Your task to perform on an android device: move a message to another label in the gmail app Image 0: 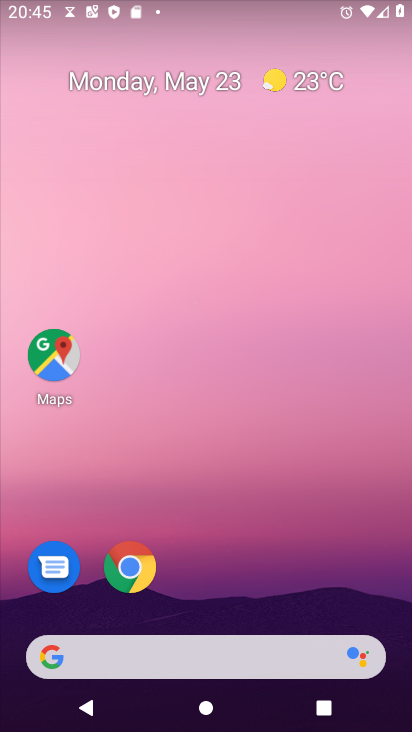
Step 0: drag from (249, 612) to (284, 265)
Your task to perform on an android device: move a message to another label in the gmail app Image 1: 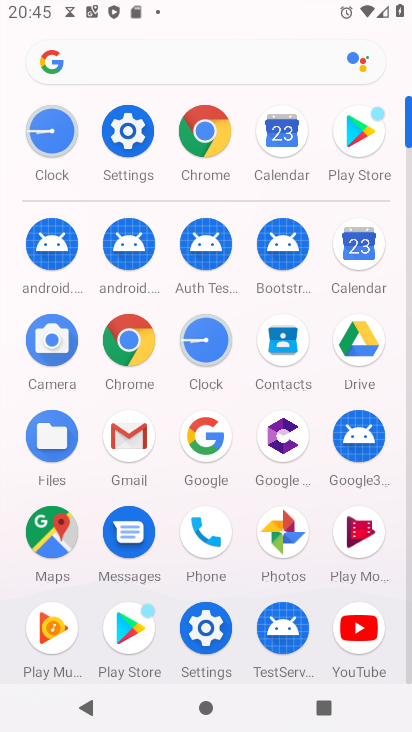
Step 1: drag from (234, 581) to (272, 360)
Your task to perform on an android device: move a message to another label in the gmail app Image 2: 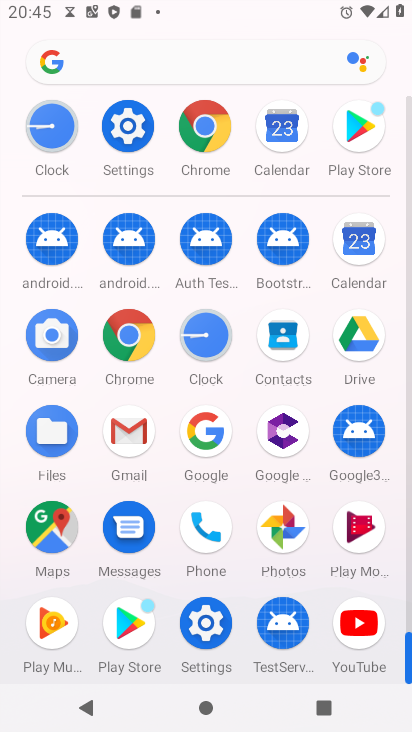
Step 2: click (99, 418)
Your task to perform on an android device: move a message to another label in the gmail app Image 3: 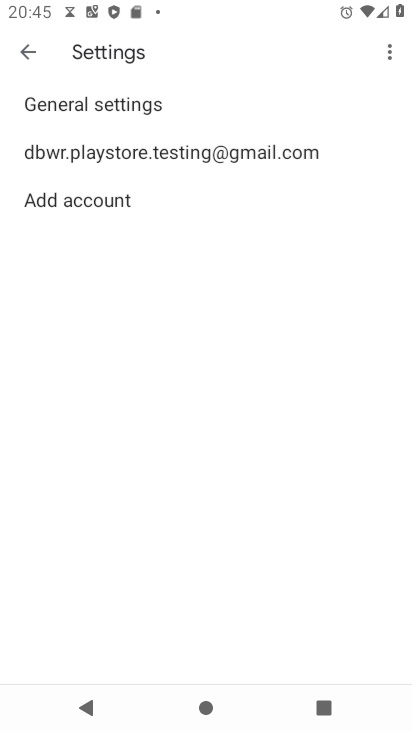
Step 3: click (107, 428)
Your task to perform on an android device: move a message to another label in the gmail app Image 4: 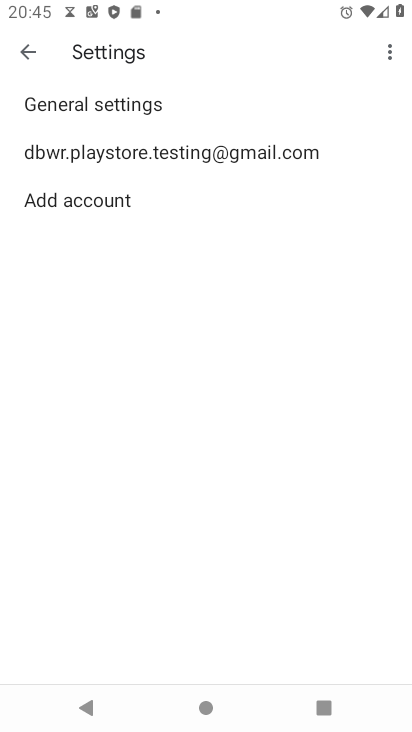
Step 4: click (219, 150)
Your task to perform on an android device: move a message to another label in the gmail app Image 5: 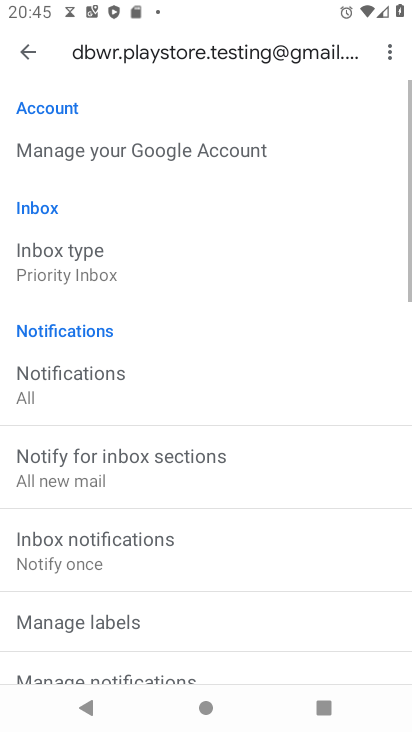
Step 5: click (26, 35)
Your task to perform on an android device: move a message to another label in the gmail app Image 6: 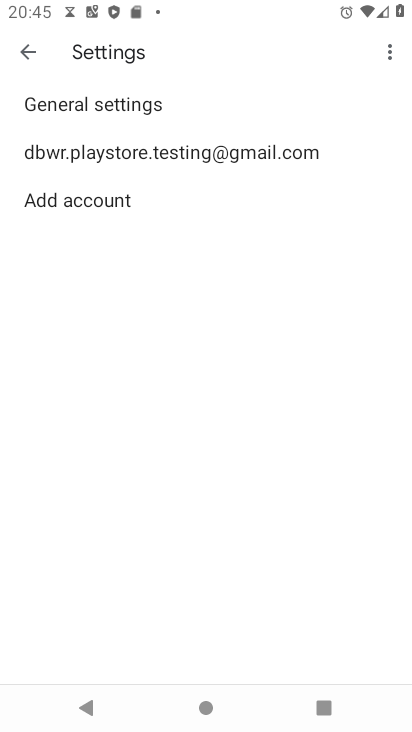
Step 6: click (26, 35)
Your task to perform on an android device: move a message to another label in the gmail app Image 7: 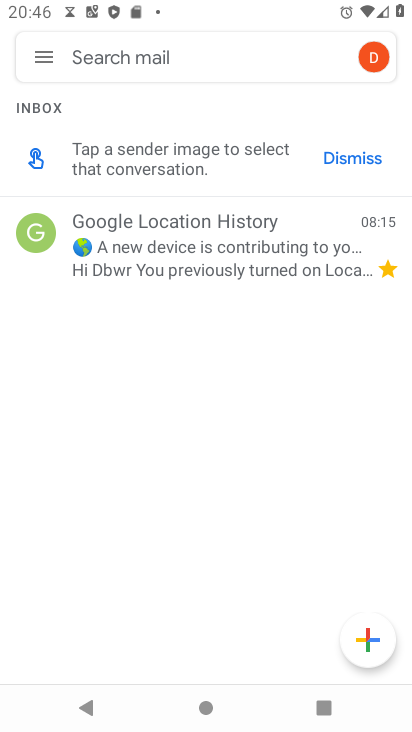
Step 7: click (26, 220)
Your task to perform on an android device: move a message to another label in the gmail app Image 8: 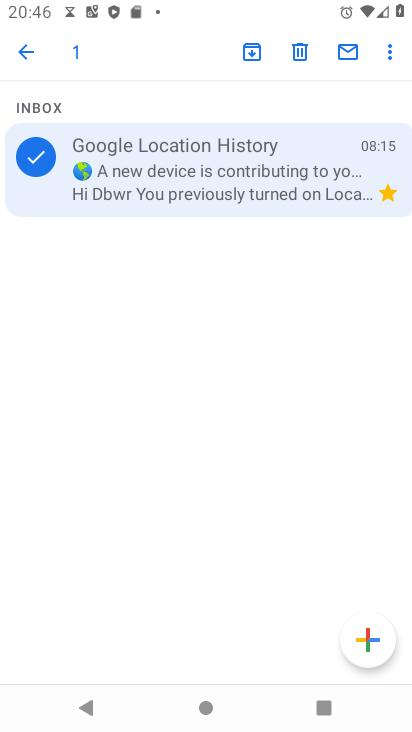
Step 8: click (394, 38)
Your task to perform on an android device: move a message to another label in the gmail app Image 9: 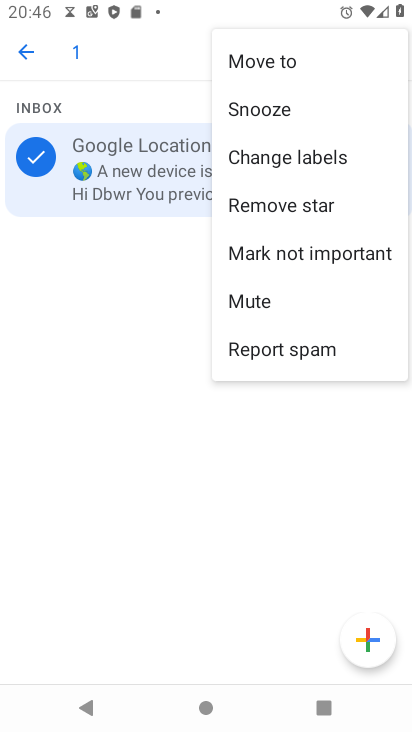
Step 9: click (277, 62)
Your task to perform on an android device: move a message to another label in the gmail app Image 10: 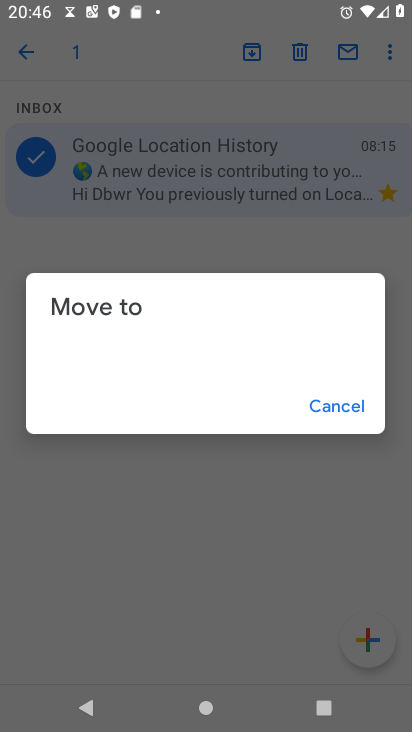
Step 10: click (322, 395)
Your task to perform on an android device: move a message to another label in the gmail app Image 11: 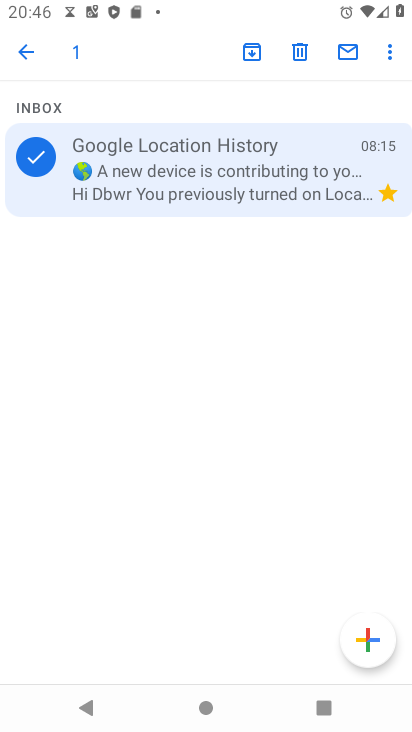
Step 11: task complete